Your task to perform on an android device: Open Google Maps Image 0: 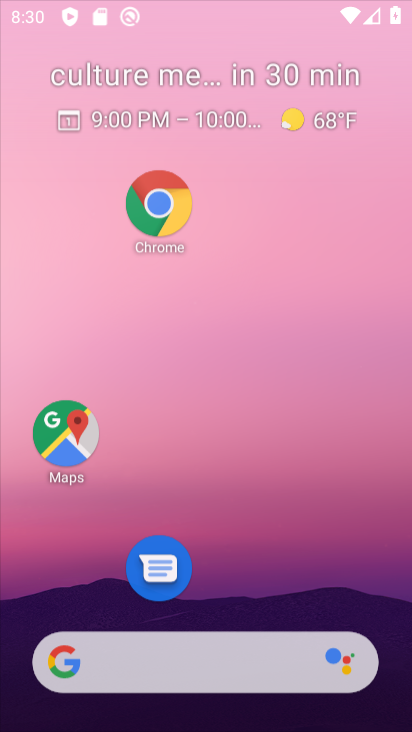
Step 0: press back button
Your task to perform on an android device: Open Google Maps Image 1: 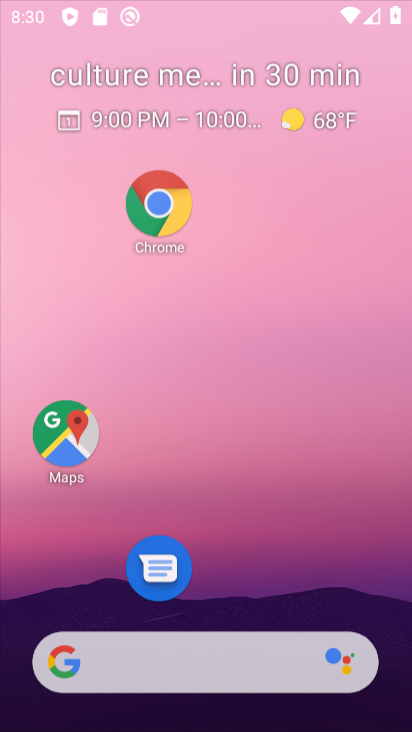
Step 1: click (321, 453)
Your task to perform on an android device: Open Google Maps Image 2: 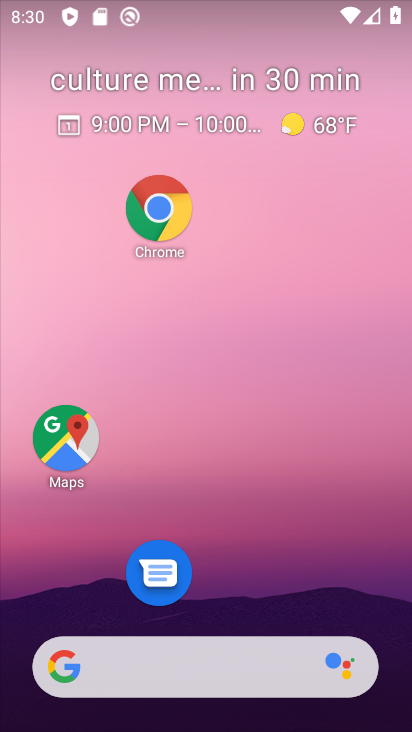
Step 2: drag from (247, 692) to (140, 133)
Your task to perform on an android device: Open Google Maps Image 3: 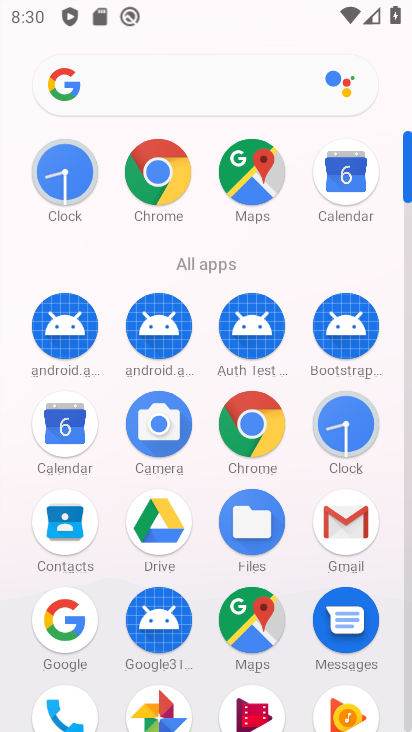
Step 3: click (246, 174)
Your task to perform on an android device: Open Google Maps Image 4: 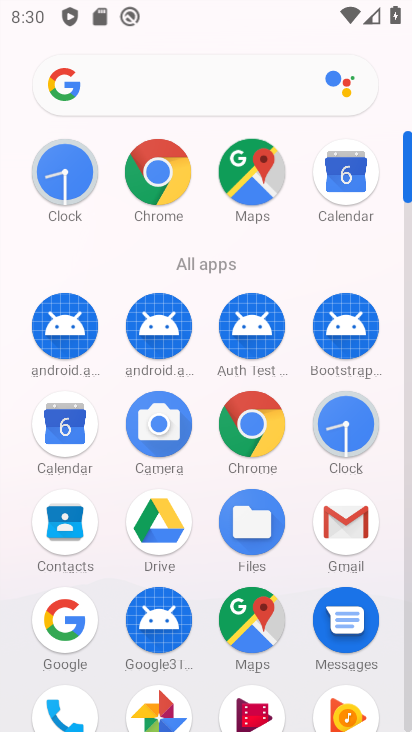
Step 4: click (247, 173)
Your task to perform on an android device: Open Google Maps Image 5: 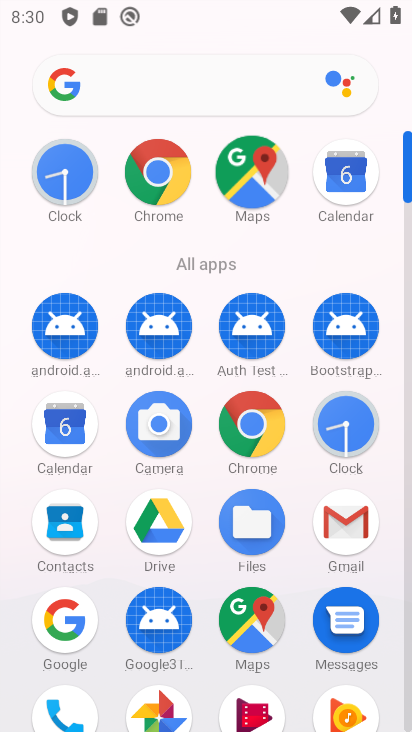
Step 5: click (247, 173)
Your task to perform on an android device: Open Google Maps Image 6: 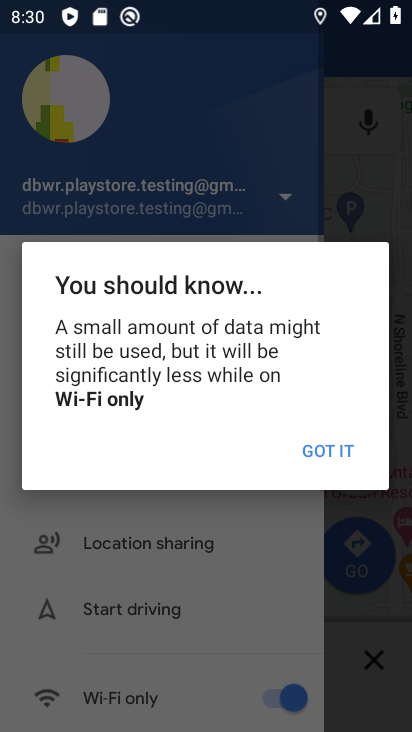
Step 6: click (315, 445)
Your task to perform on an android device: Open Google Maps Image 7: 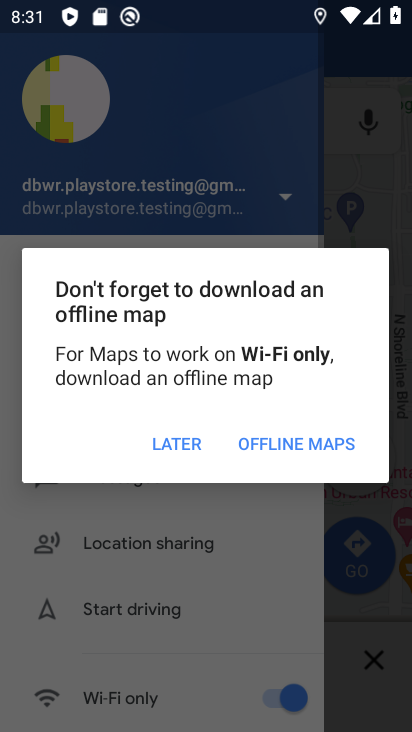
Step 7: click (179, 442)
Your task to perform on an android device: Open Google Maps Image 8: 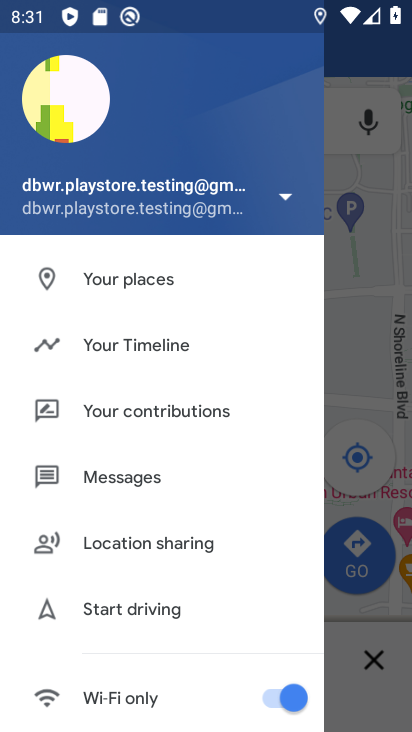
Step 8: click (365, 303)
Your task to perform on an android device: Open Google Maps Image 9: 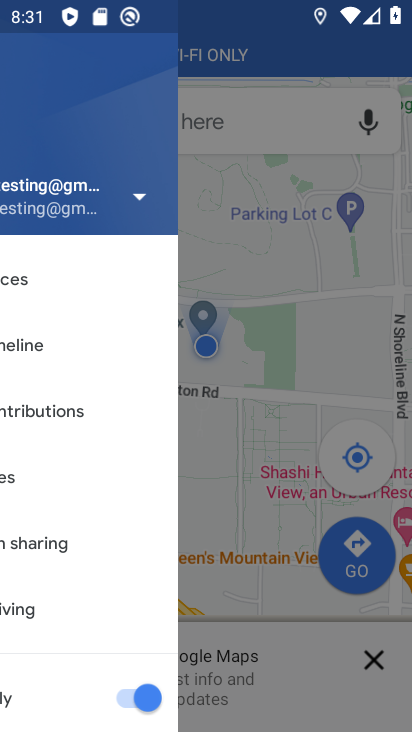
Step 9: click (356, 352)
Your task to perform on an android device: Open Google Maps Image 10: 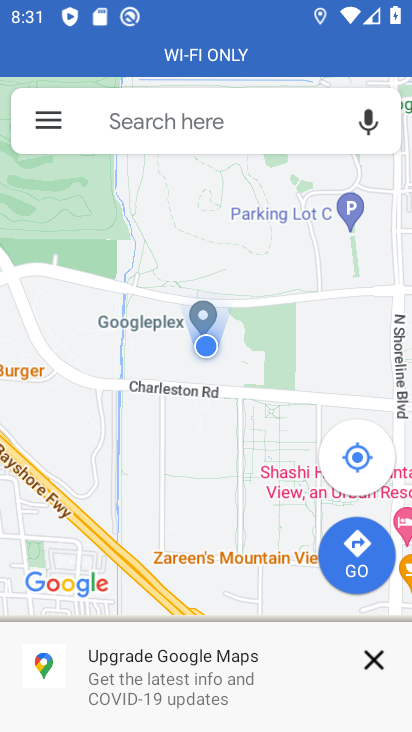
Step 10: task complete